Your task to perform on an android device: manage bookmarks in the chrome app Image 0: 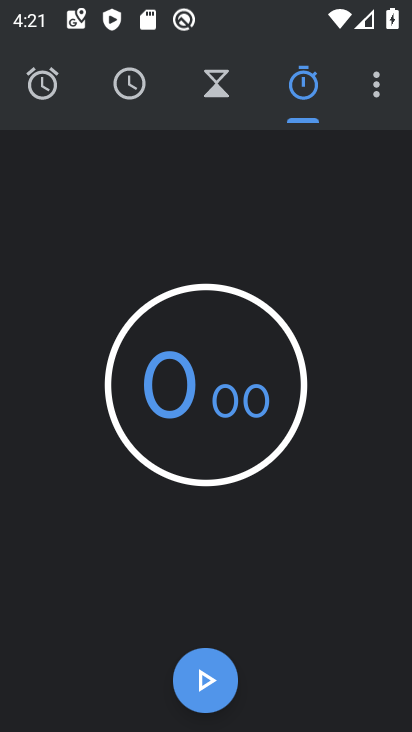
Step 0: press home button
Your task to perform on an android device: manage bookmarks in the chrome app Image 1: 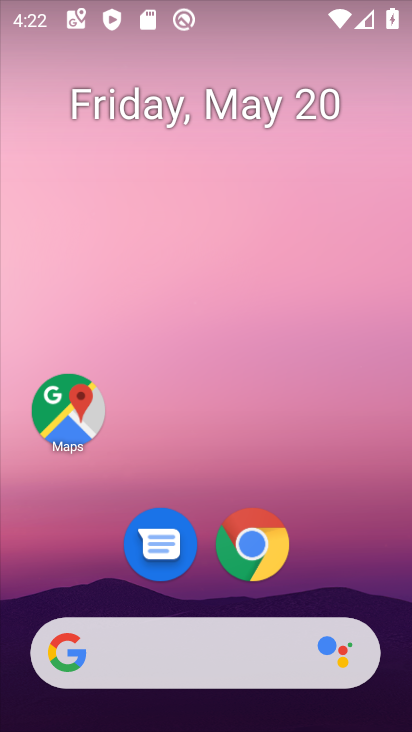
Step 1: click (241, 549)
Your task to perform on an android device: manage bookmarks in the chrome app Image 2: 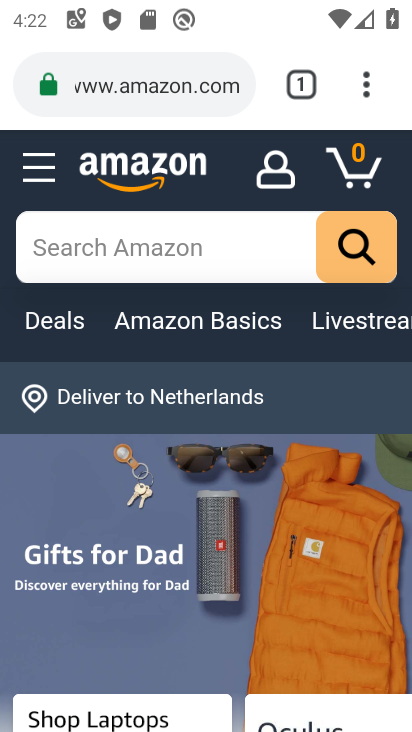
Step 2: click (365, 92)
Your task to perform on an android device: manage bookmarks in the chrome app Image 3: 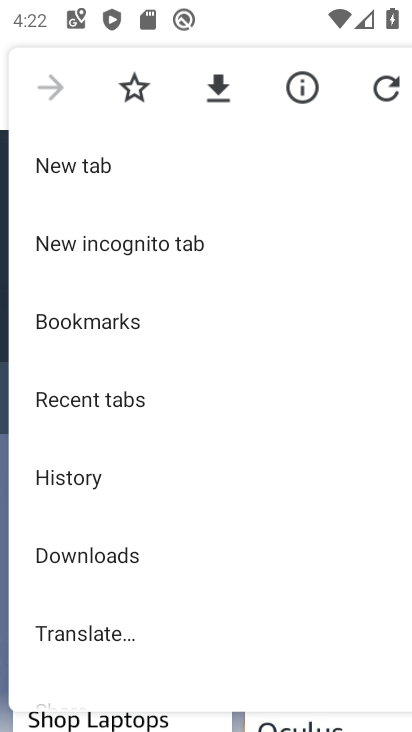
Step 3: click (76, 325)
Your task to perform on an android device: manage bookmarks in the chrome app Image 4: 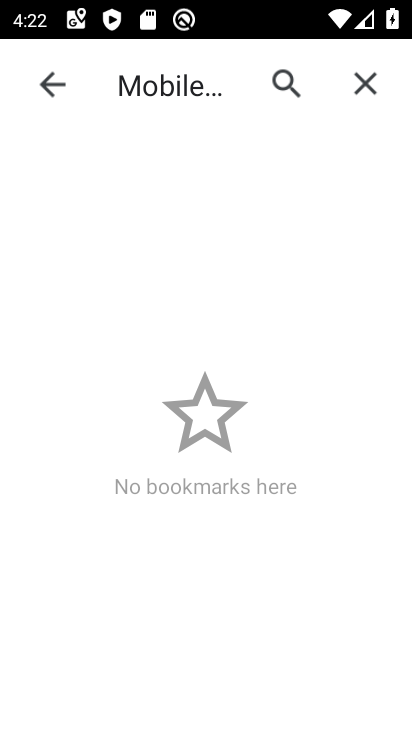
Step 4: task complete